Your task to perform on an android device: Do I have any events tomorrow? Image 0: 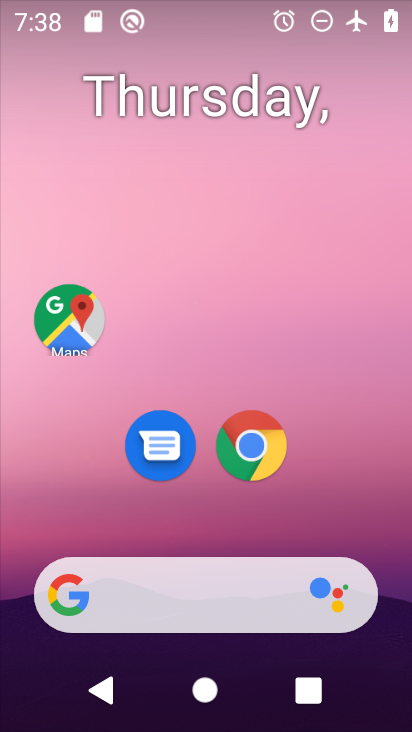
Step 0: drag from (369, 473) to (282, 117)
Your task to perform on an android device: Do I have any events tomorrow? Image 1: 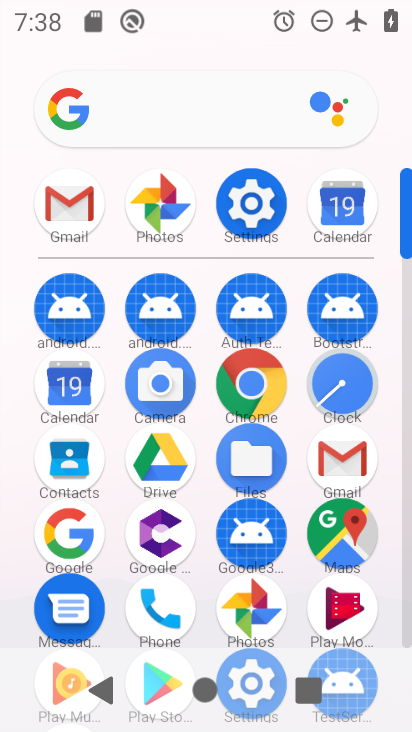
Step 1: click (67, 386)
Your task to perform on an android device: Do I have any events tomorrow? Image 2: 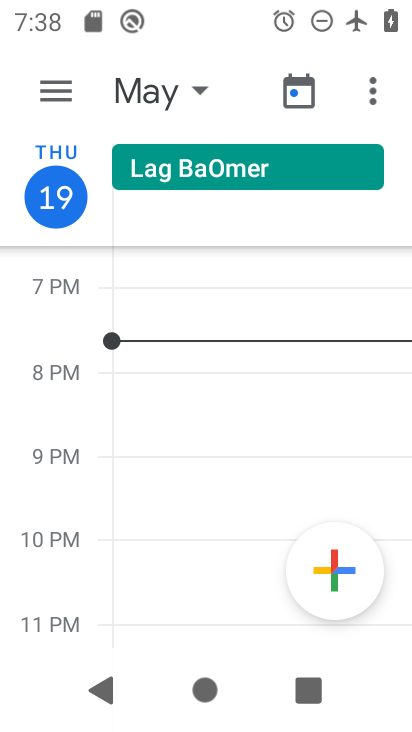
Step 2: click (204, 90)
Your task to perform on an android device: Do I have any events tomorrow? Image 3: 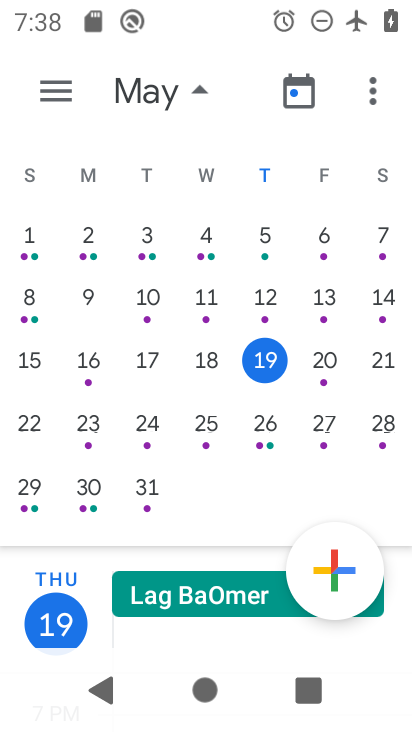
Step 3: click (325, 358)
Your task to perform on an android device: Do I have any events tomorrow? Image 4: 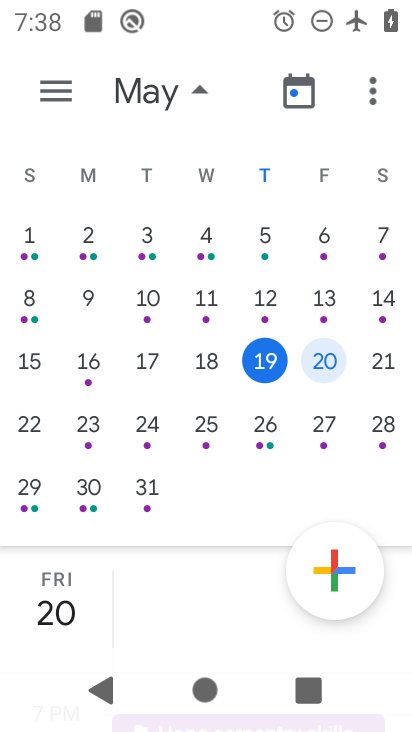
Step 4: task complete